Your task to perform on an android device: Go to wifi settings Image 0: 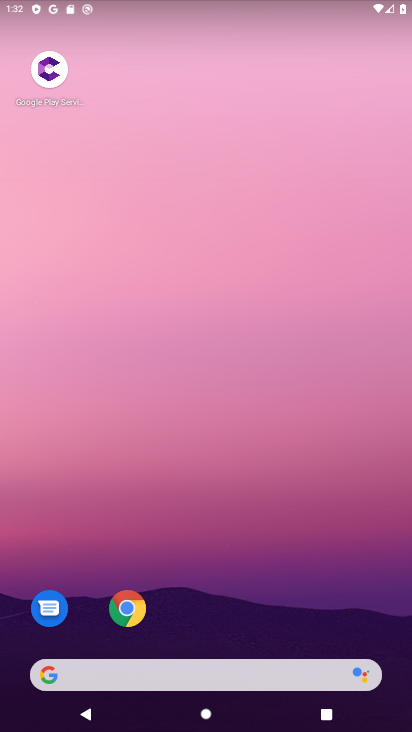
Step 0: drag from (50, 714) to (284, 24)
Your task to perform on an android device: Go to wifi settings Image 1: 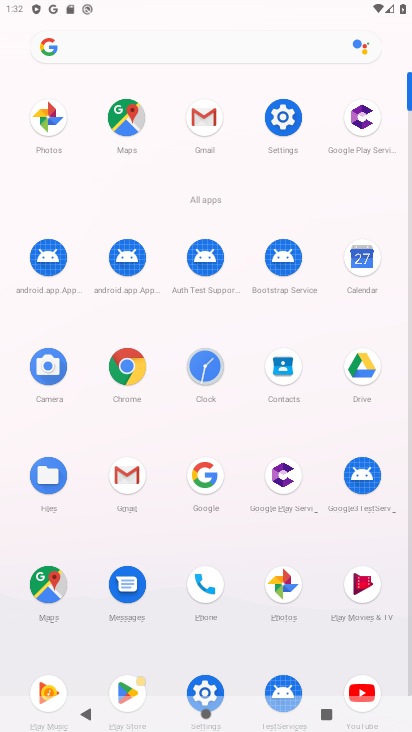
Step 1: click (197, 689)
Your task to perform on an android device: Go to wifi settings Image 2: 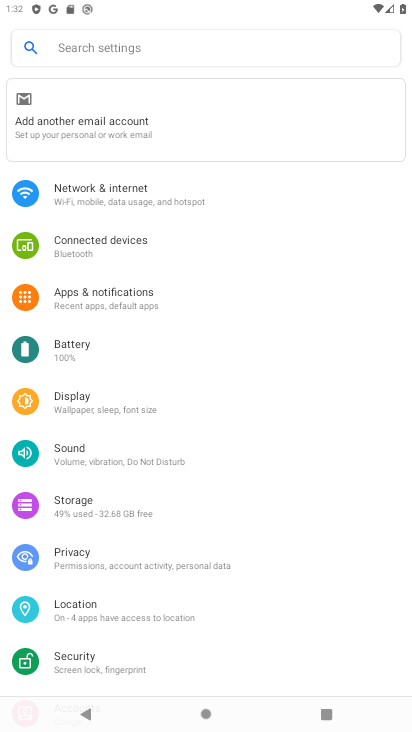
Step 2: click (108, 197)
Your task to perform on an android device: Go to wifi settings Image 3: 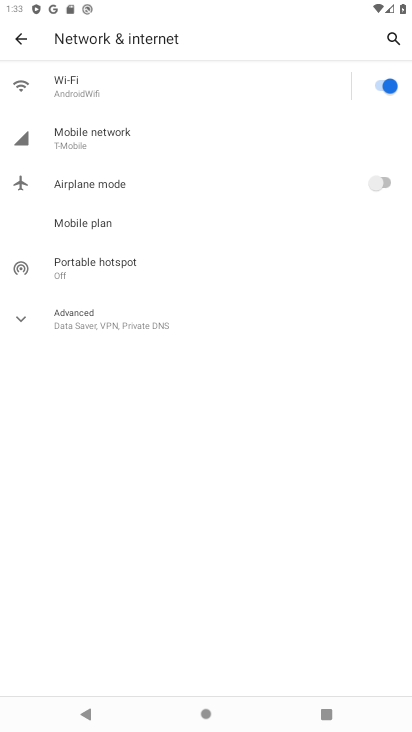
Step 3: task complete